Your task to perform on an android device: change alarm snooze length Image 0: 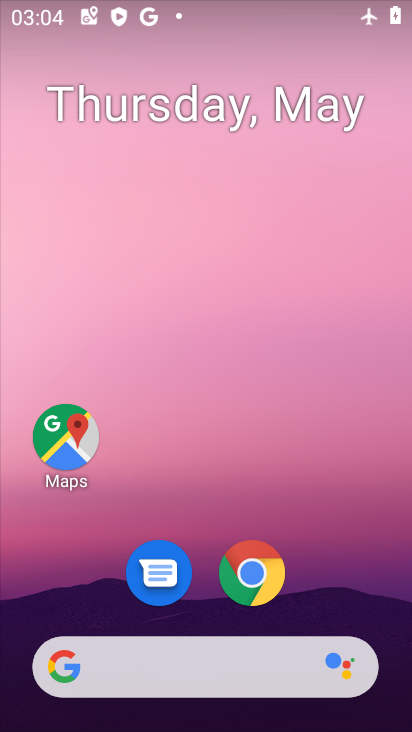
Step 0: drag from (309, 467) to (340, 273)
Your task to perform on an android device: change alarm snooze length Image 1: 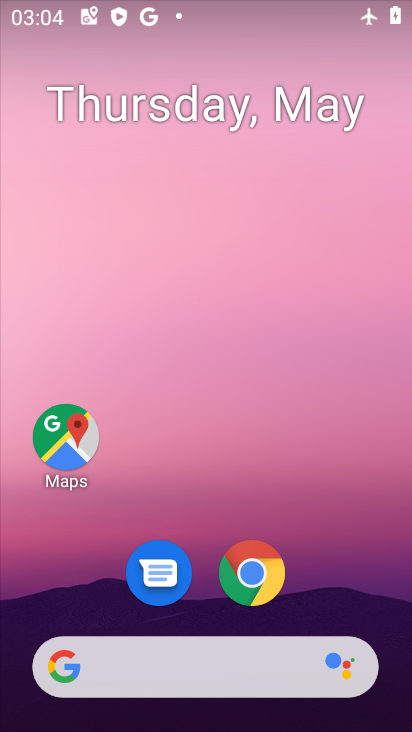
Step 1: drag from (296, 581) to (338, 144)
Your task to perform on an android device: change alarm snooze length Image 2: 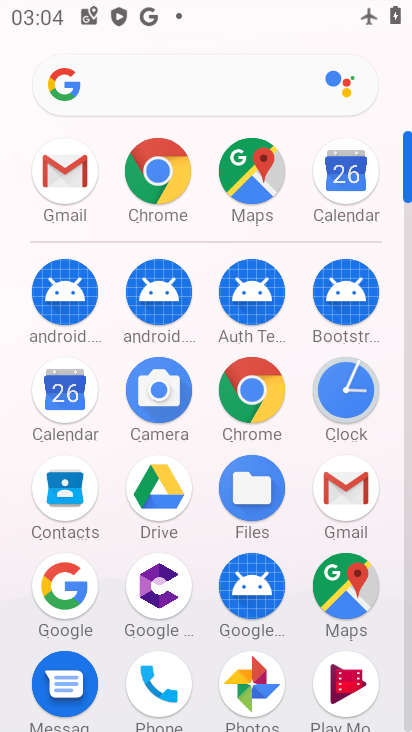
Step 2: click (346, 383)
Your task to perform on an android device: change alarm snooze length Image 3: 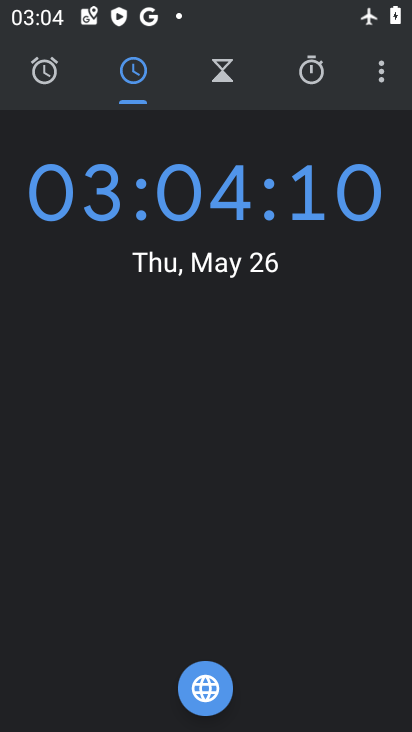
Step 3: click (376, 65)
Your task to perform on an android device: change alarm snooze length Image 4: 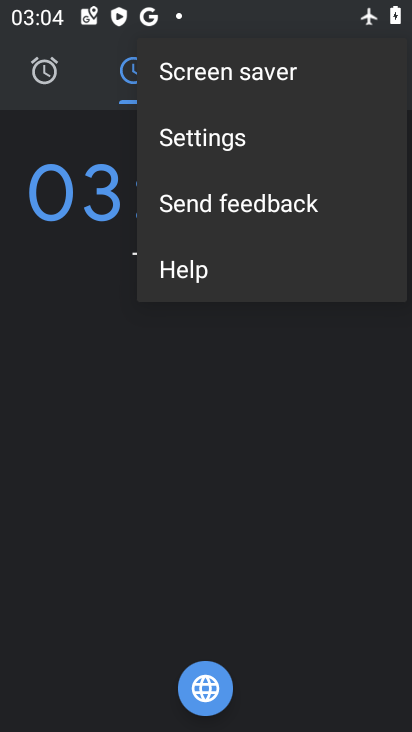
Step 4: click (244, 133)
Your task to perform on an android device: change alarm snooze length Image 5: 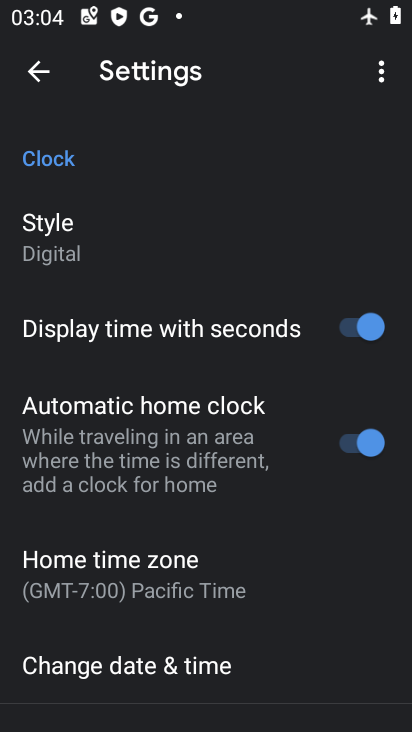
Step 5: drag from (212, 644) to (262, 229)
Your task to perform on an android device: change alarm snooze length Image 6: 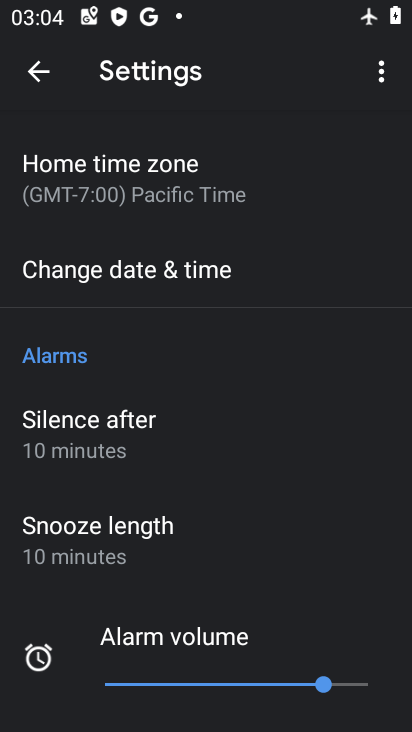
Step 6: click (110, 558)
Your task to perform on an android device: change alarm snooze length Image 7: 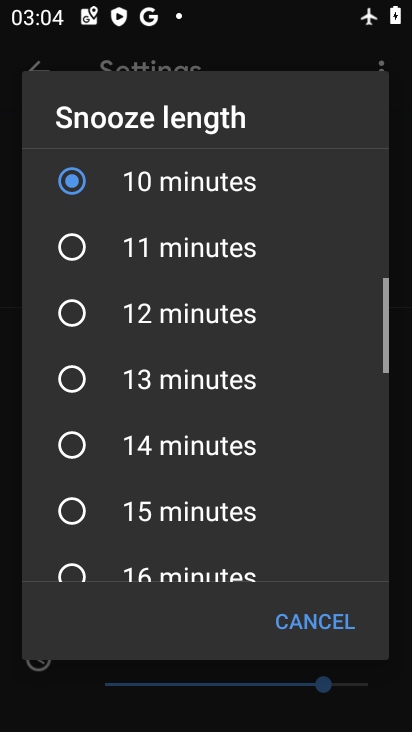
Step 7: click (122, 447)
Your task to perform on an android device: change alarm snooze length Image 8: 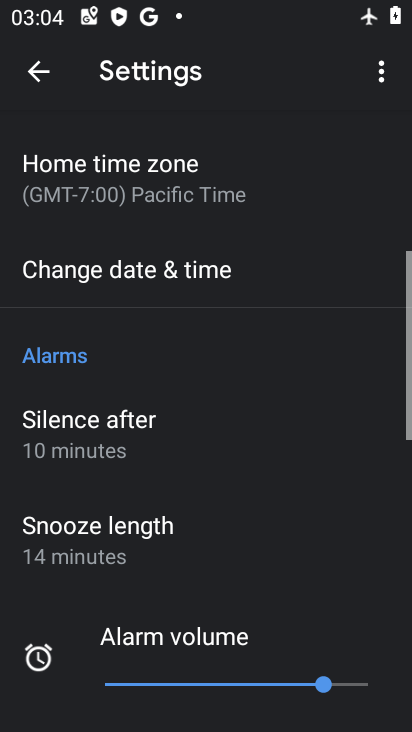
Step 8: task complete